Your task to perform on an android device: Open Amazon Image 0: 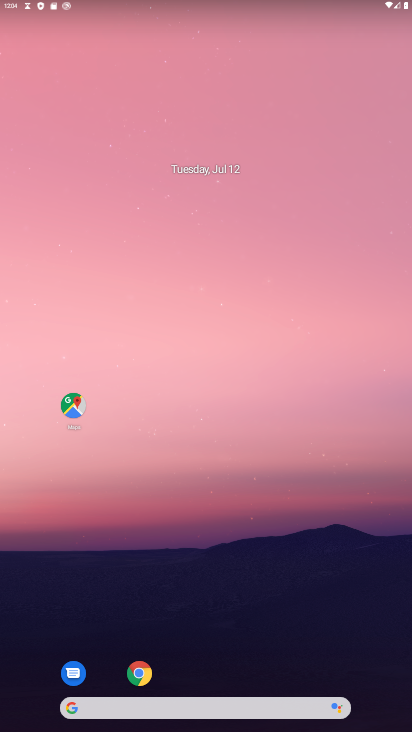
Step 0: click (145, 673)
Your task to perform on an android device: Open Amazon Image 1: 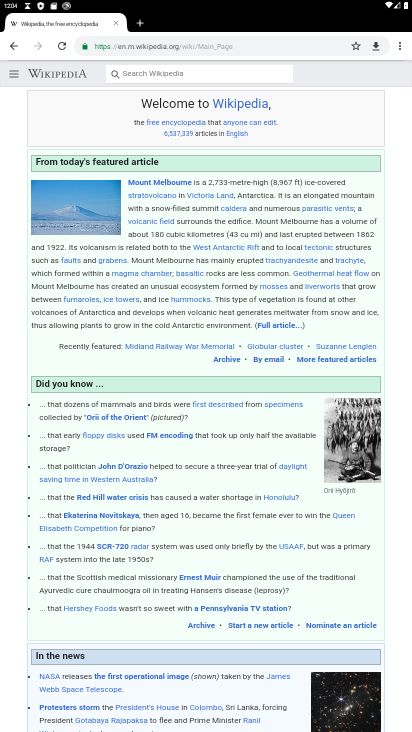
Step 1: click (139, 21)
Your task to perform on an android device: Open Amazon Image 2: 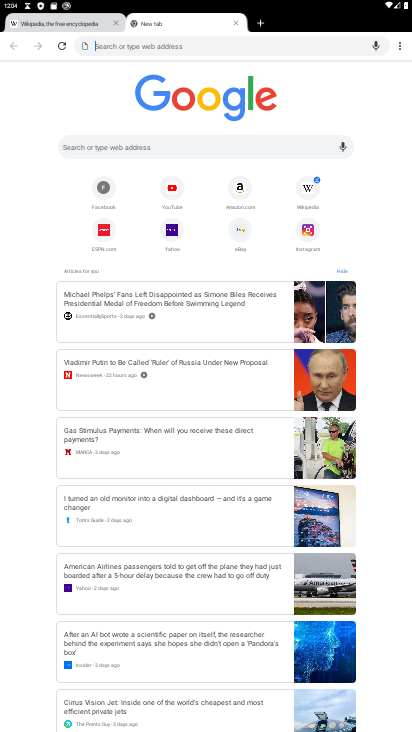
Step 2: click (234, 188)
Your task to perform on an android device: Open Amazon Image 3: 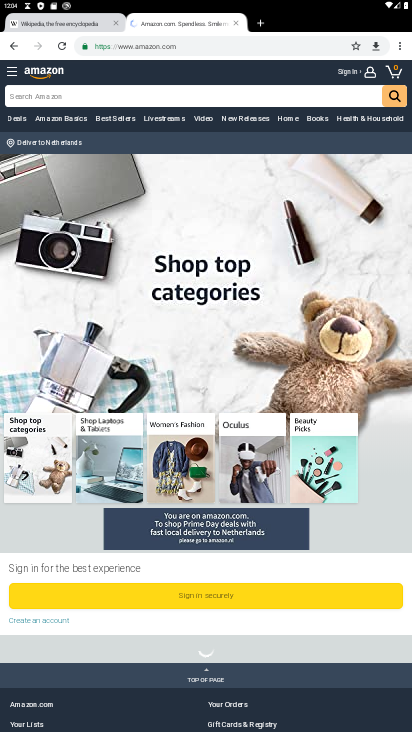
Step 3: task complete